Your task to perform on an android device: Open Reddit.com Image 0: 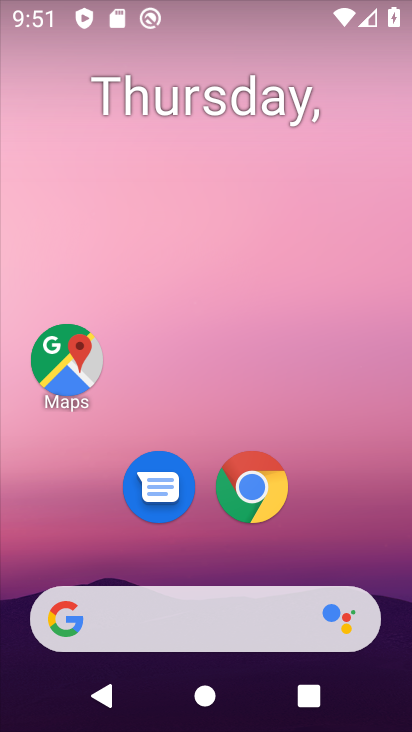
Step 0: click (268, 511)
Your task to perform on an android device: Open Reddit.com Image 1: 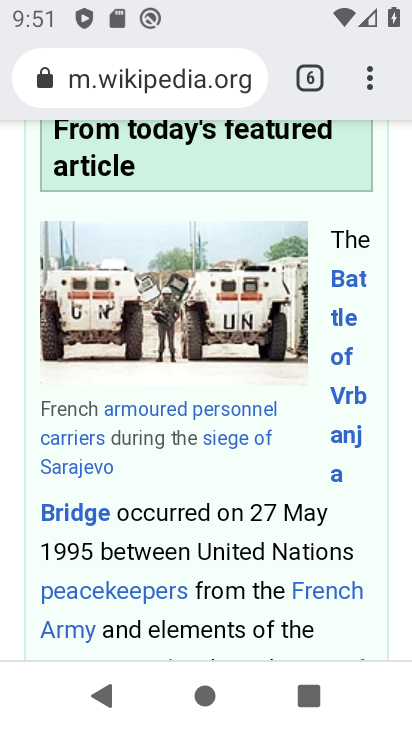
Step 1: click (308, 83)
Your task to perform on an android device: Open Reddit.com Image 2: 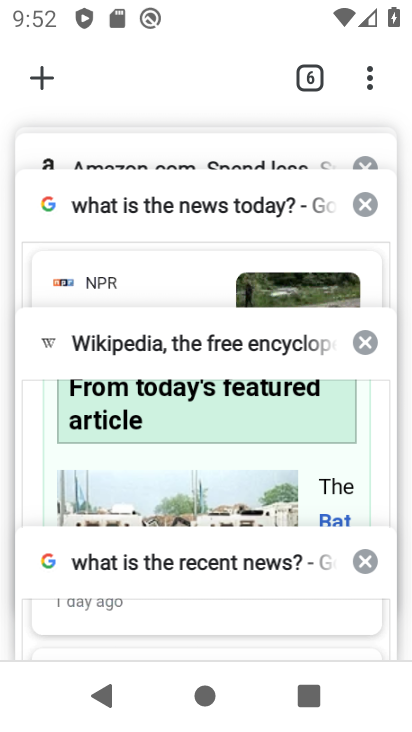
Step 2: click (38, 80)
Your task to perform on an android device: Open Reddit.com Image 3: 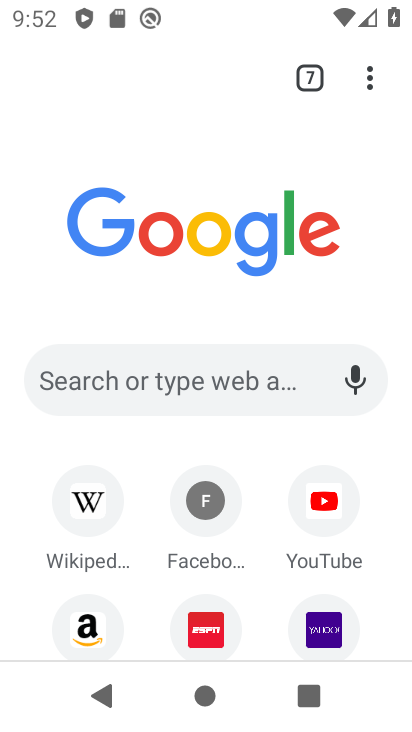
Step 3: click (123, 377)
Your task to perform on an android device: Open Reddit.com Image 4: 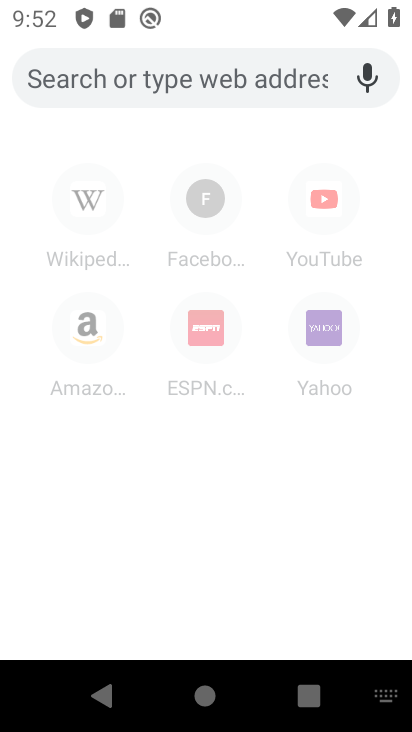
Step 4: type "reddit.com"
Your task to perform on an android device: Open Reddit.com Image 5: 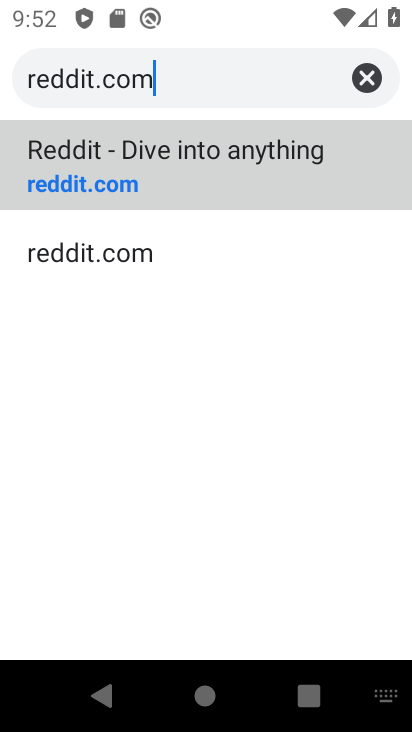
Step 5: click (218, 146)
Your task to perform on an android device: Open Reddit.com Image 6: 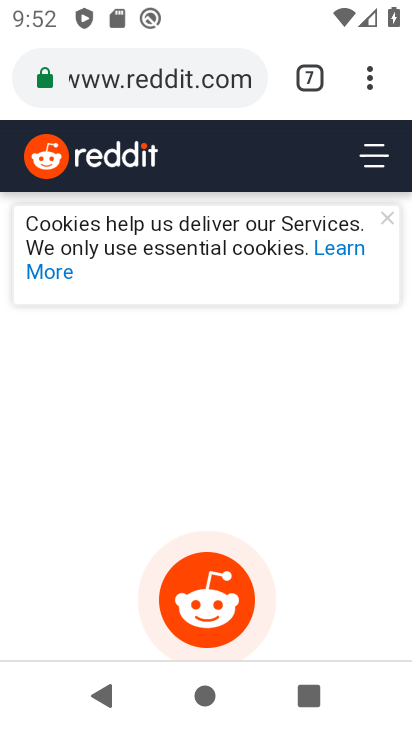
Step 6: task complete